Your task to perform on an android device: Is it going to rain today? Image 0: 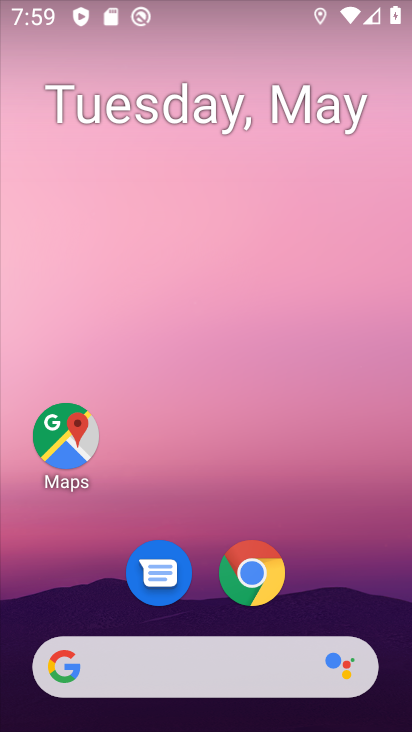
Step 0: click (385, 227)
Your task to perform on an android device: Is it going to rain today? Image 1: 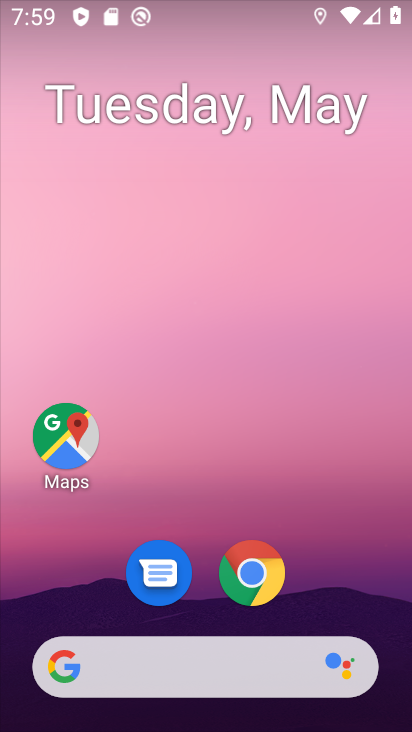
Step 1: drag from (386, 644) to (409, 339)
Your task to perform on an android device: Is it going to rain today? Image 2: 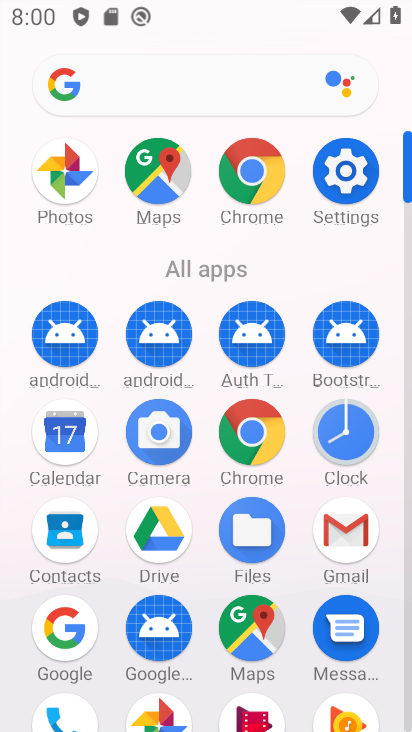
Step 2: drag from (319, 336) to (321, 152)
Your task to perform on an android device: Is it going to rain today? Image 3: 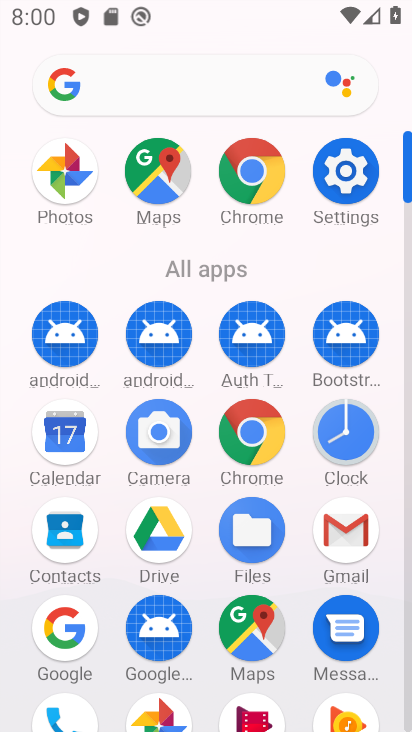
Step 3: click (54, 613)
Your task to perform on an android device: Is it going to rain today? Image 4: 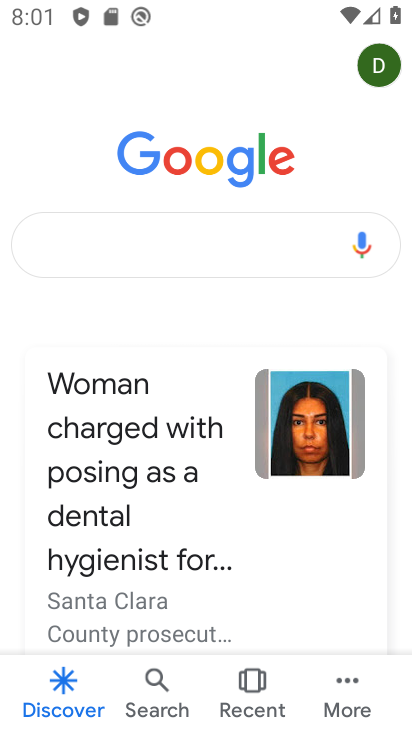
Step 4: task complete